Your task to perform on an android device: check google app version Image 0: 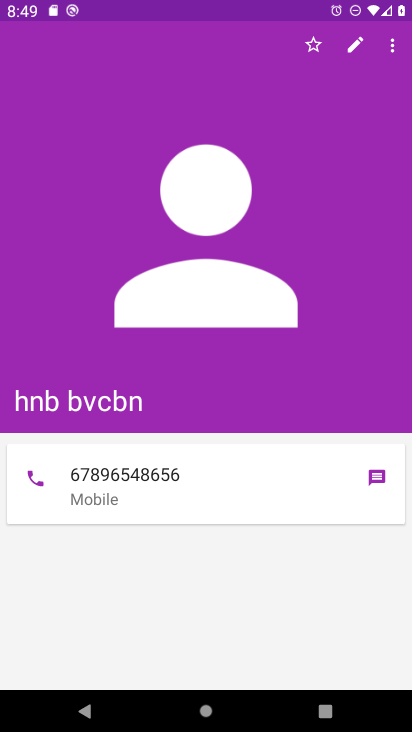
Step 0: press home button
Your task to perform on an android device: check google app version Image 1: 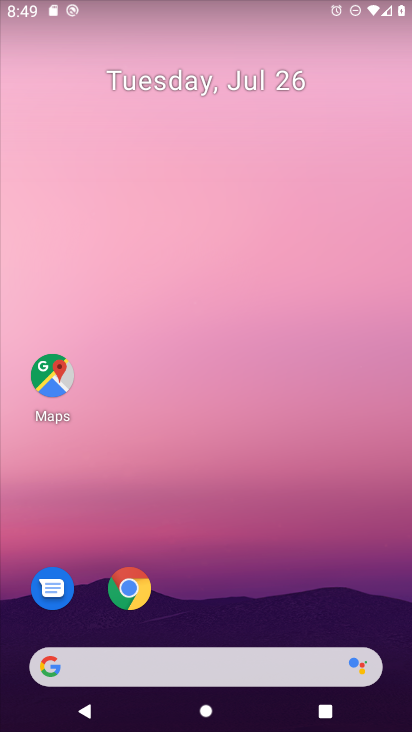
Step 1: drag from (199, 653) to (208, 253)
Your task to perform on an android device: check google app version Image 2: 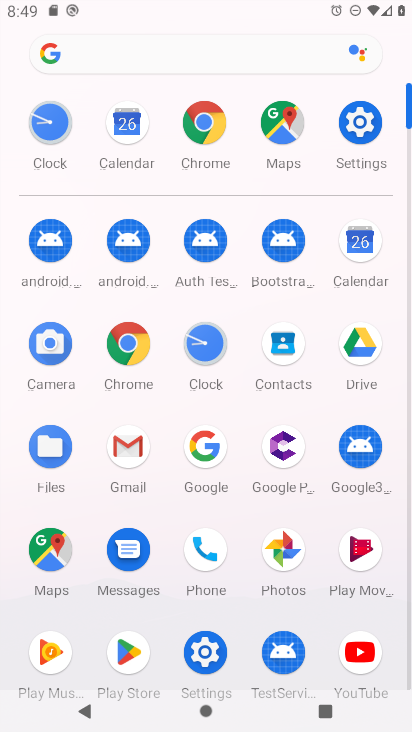
Step 2: click (197, 478)
Your task to perform on an android device: check google app version Image 3: 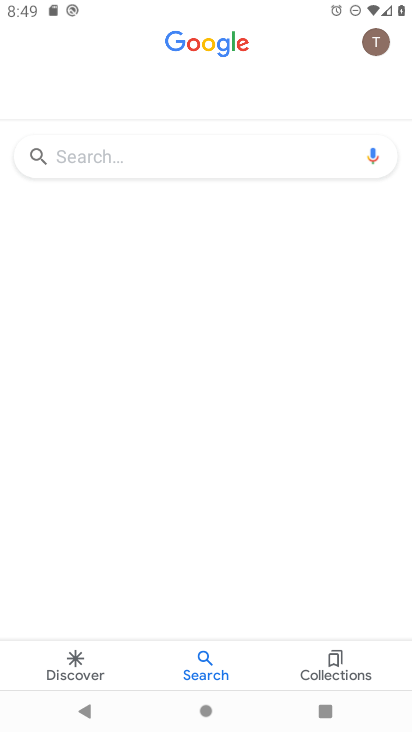
Step 3: click (378, 50)
Your task to perform on an android device: check google app version Image 4: 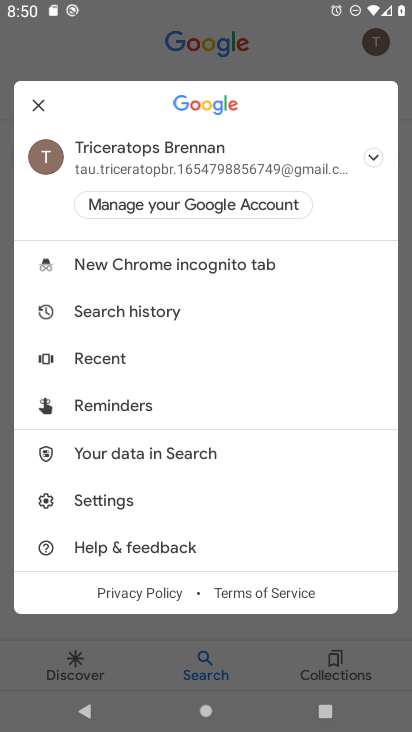
Step 4: click (94, 505)
Your task to perform on an android device: check google app version Image 5: 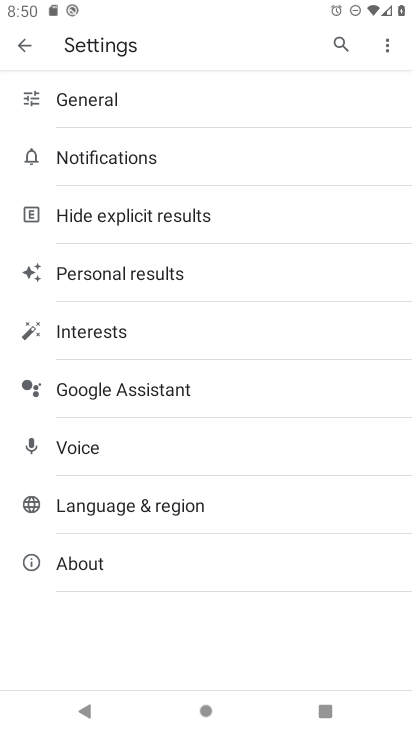
Step 5: click (101, 579)
Your task to perform on an android device: check google app version Image 6: 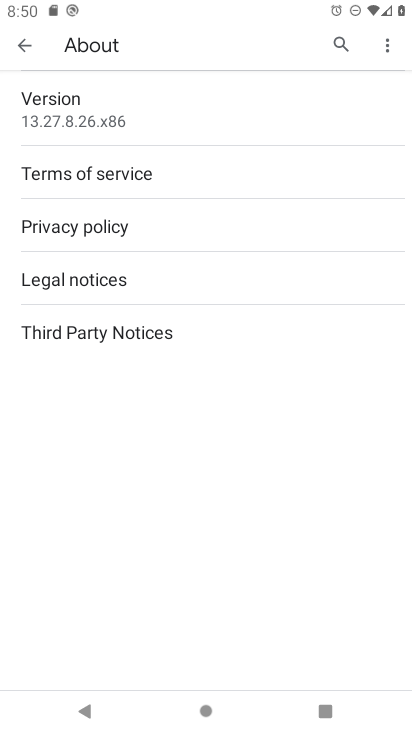
Step 6: task complete